Your task to perform on an android device: manage bookmarks in the chrome app Image 0: 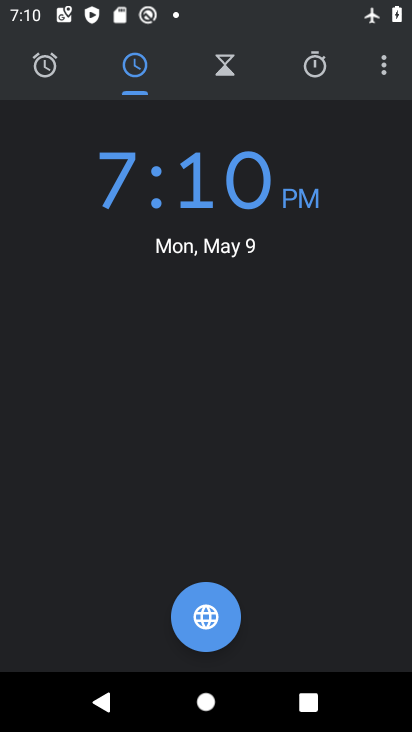
Step 0: press back button
Your task to perform on an android device: manage bookmarks in the chrome app Image 1: 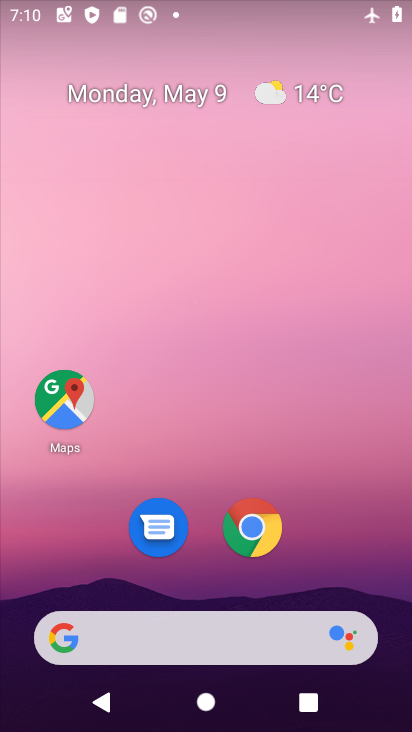
Step 1: click (253, 529)
Your task to perform on an android device: manage bookmarks in the chrome app Image 2: 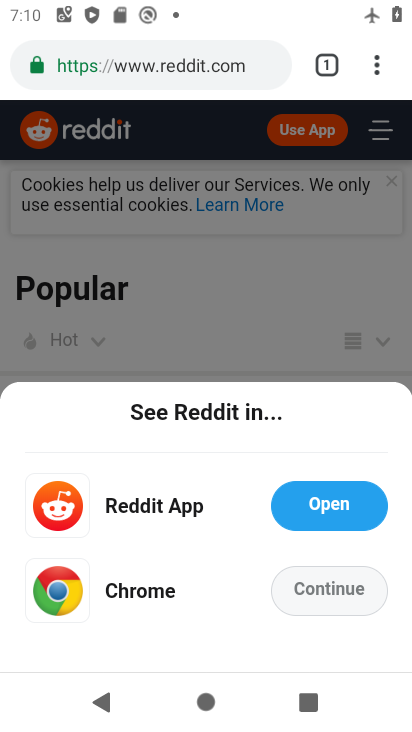
Step 2: click (377, 65)
Your task to perform on an android device: manage bookmarks in the chrome app Image 3: 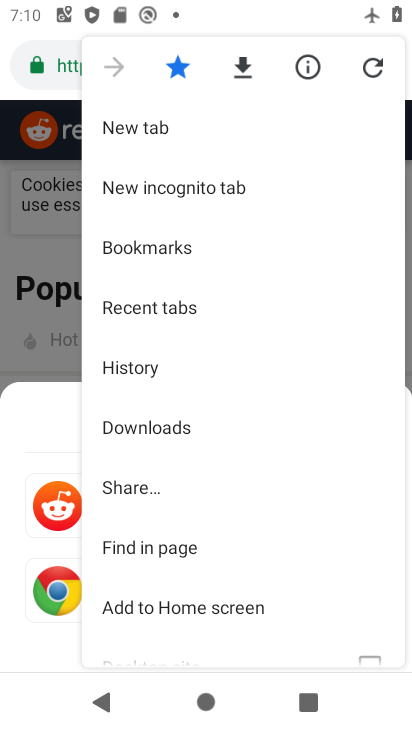
Step 3: click (184, 247)
Your task to perform on an android device: manage bookmarks in the chrome app Image 4: 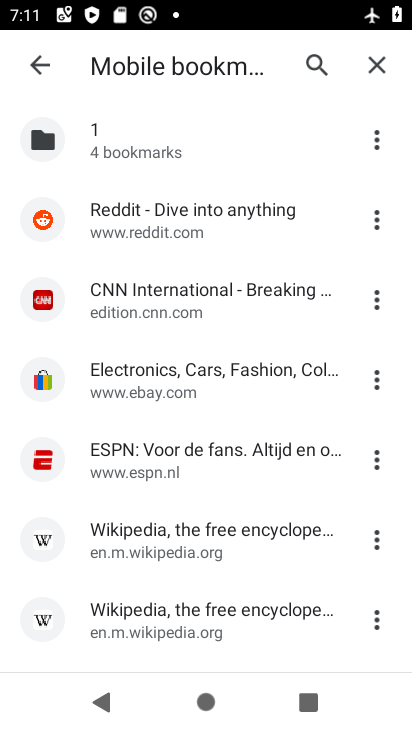
Step 4: task complete